Your task to perform on an android device: Open Android settings Image 0: 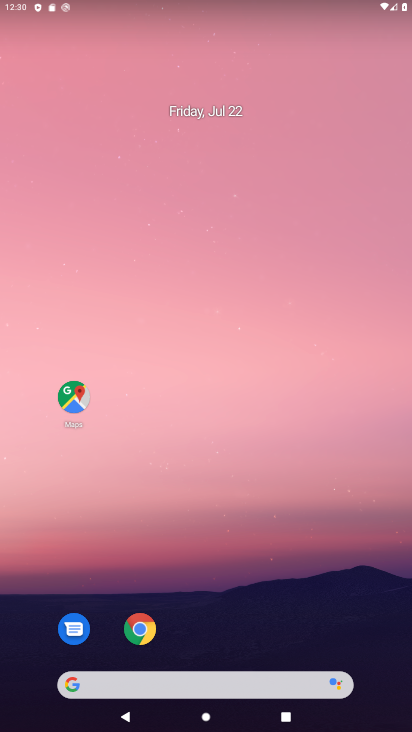
Step 0: drag from (196, 611) to (214, 121)
Your task to perform on an android device: Open Android settings Image 1: 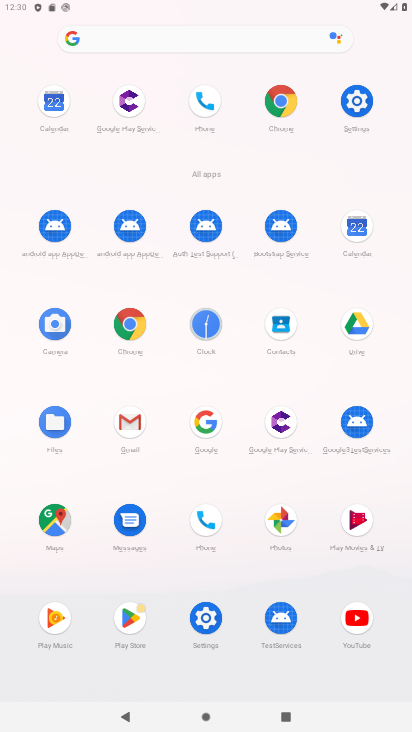
Step 1: click (357, 109)
Your task to perform on an android device: Open Android settings Image 2: 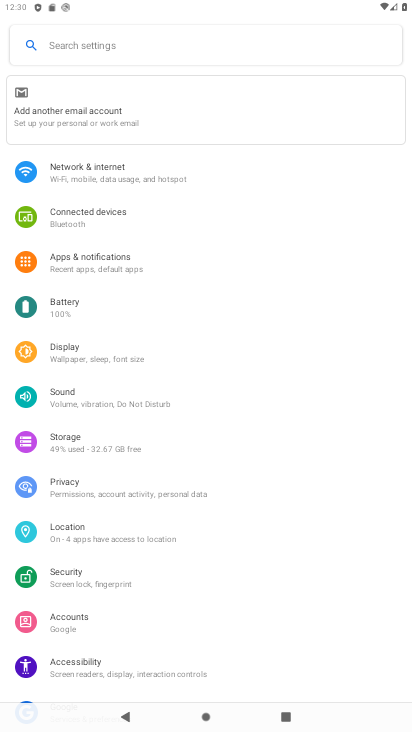
Step 2: task complete